Your task to perform on an android device: uninstall "Adobe Acrobat Reader" Image 0: 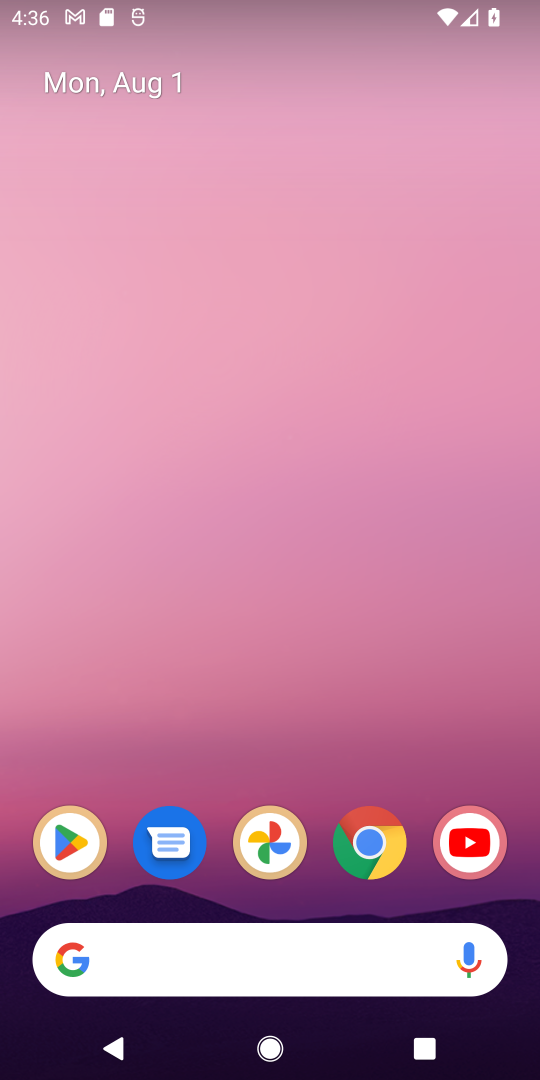
Step 0: drag from (324, 1039) to (193, 598)
Your task to perform on an android device: uninstall "Adobe Acrobat Reader" Image 1: 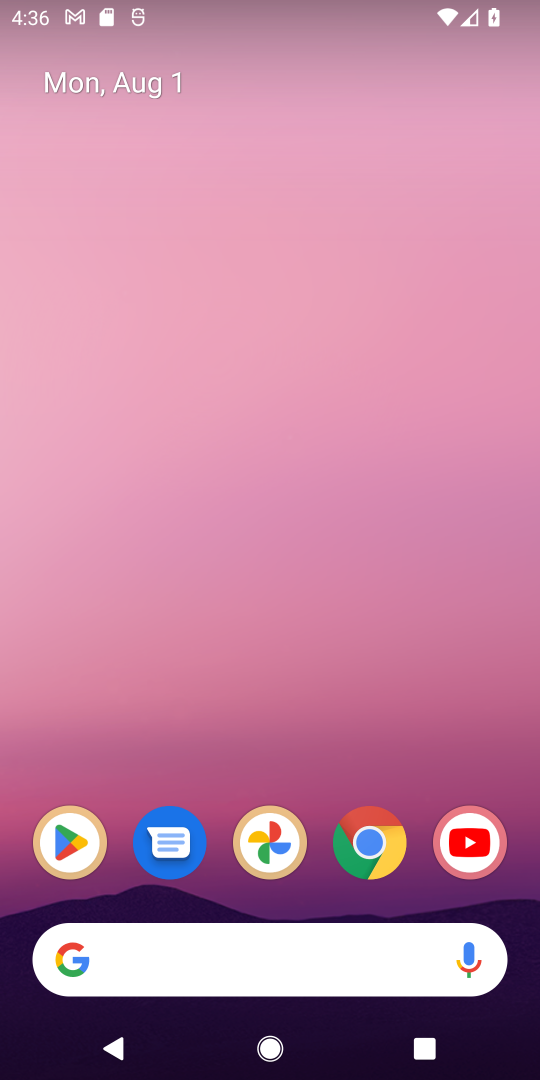
Step 1: drag from (302, 1044) to (202, 105)
Your task to perform on an android device: uninstall "Adobe Acrobat Reader" Image 2: 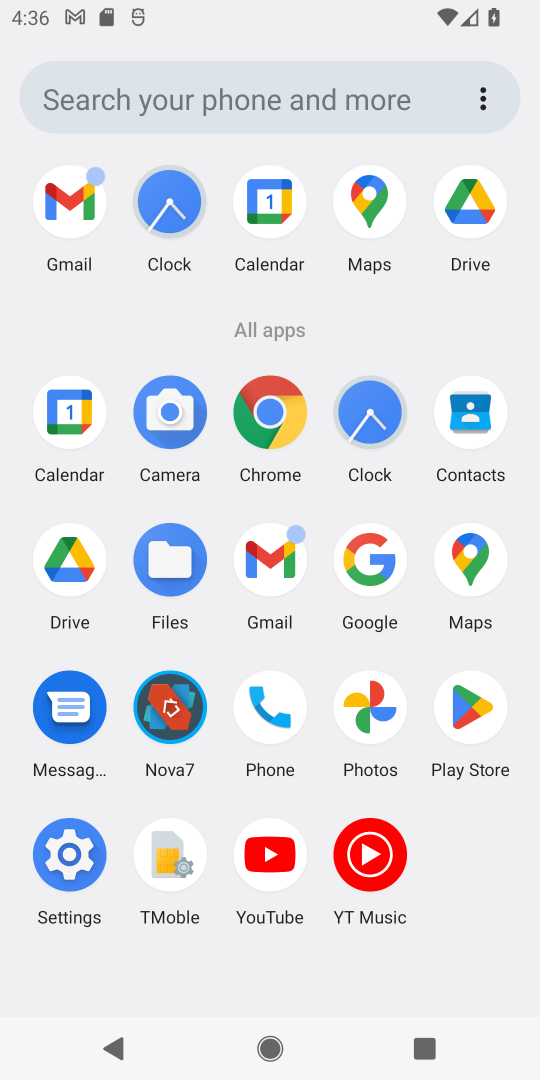
Step 2: click (461, 716)
Your task to perform on an android device: uninstall "Adobe Acrobat Reader" Image 3: 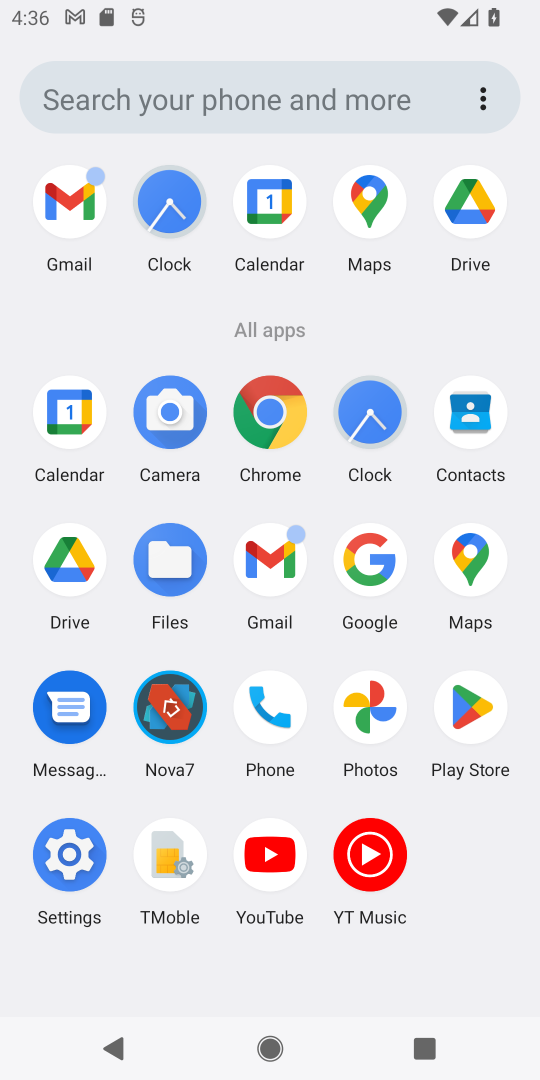
Step 3: click (462, 717)
Your task to perform on an android device: uninstall "Adobe Acrobat Reader" Image 4: 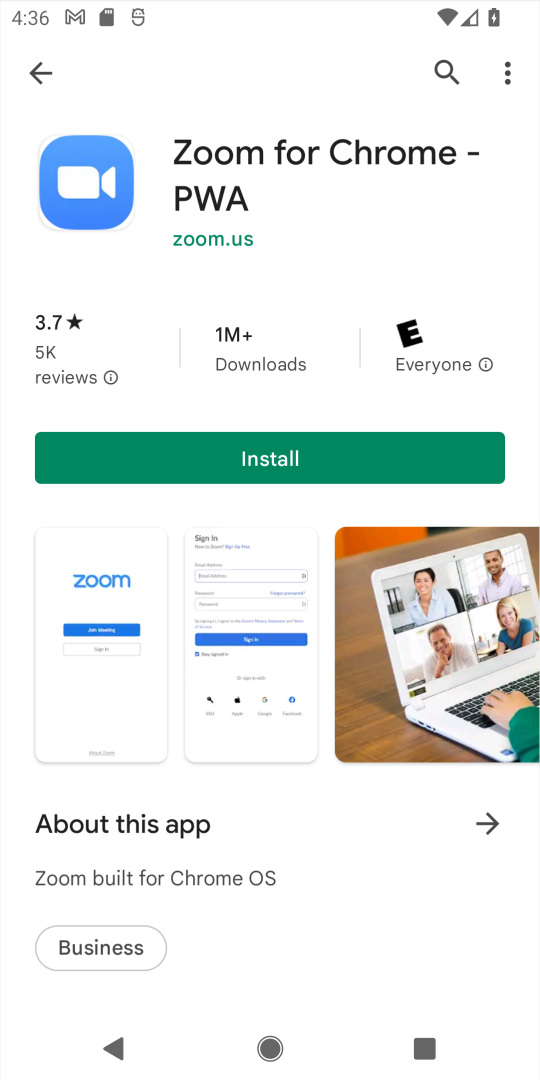
Step 4: click (467, 717)
Your task to perform on an android device: uninstall "Adobe Acrobat Reader" Image 5: 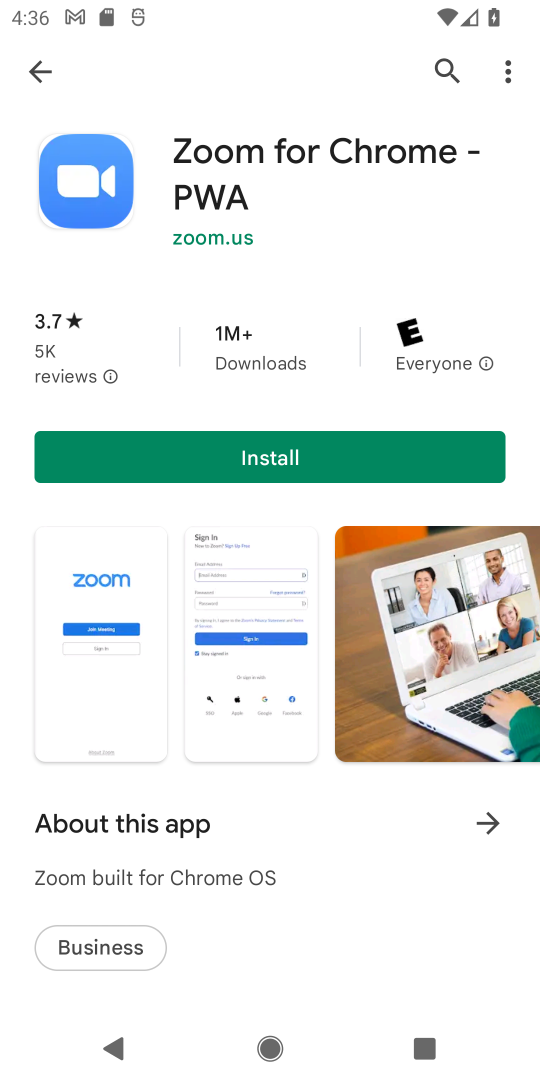
Step 5: click (471, 715)
Your task to perform on an android device: uninstall "Adobe Acrobat Reader" Image 6: 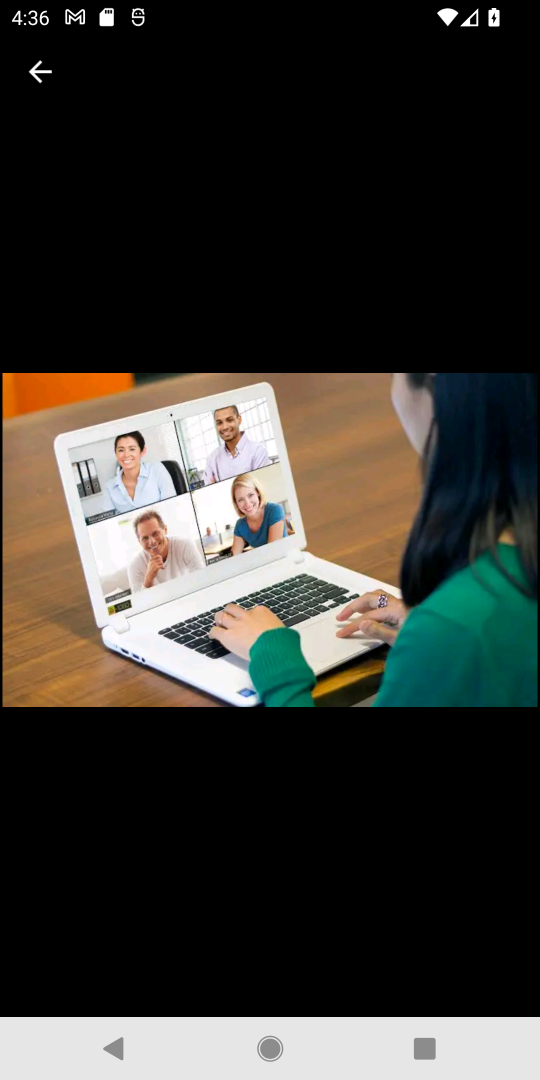
Step 6: click (29, 77)
Your task to perform on an android device: uninstall "Adobe Acrobat Reader" Image 7: 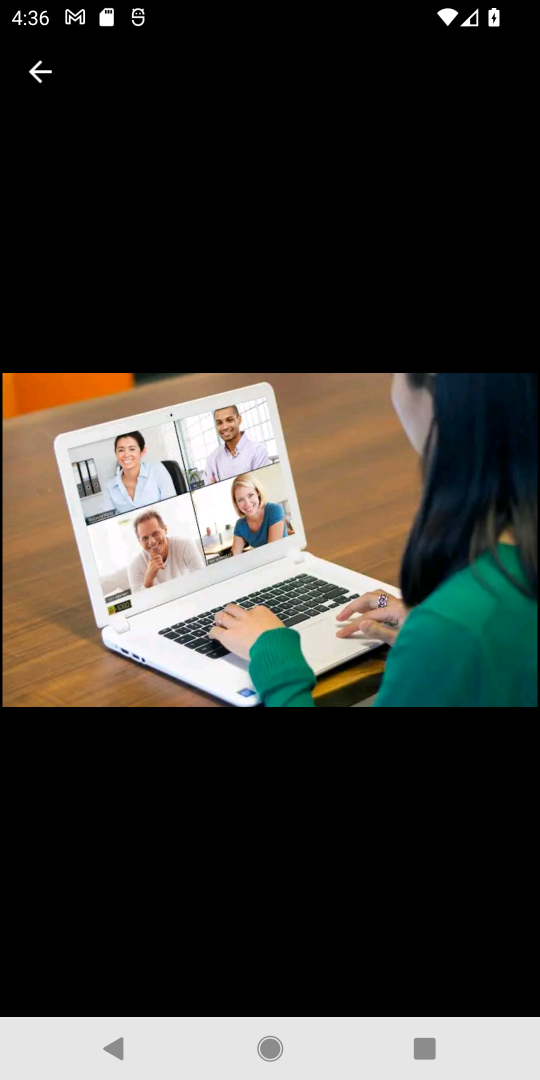
Step 7: click (31, 77)
Your task to perform on an android device: uninstall "Adobe Acrobat Reader" Image 8: 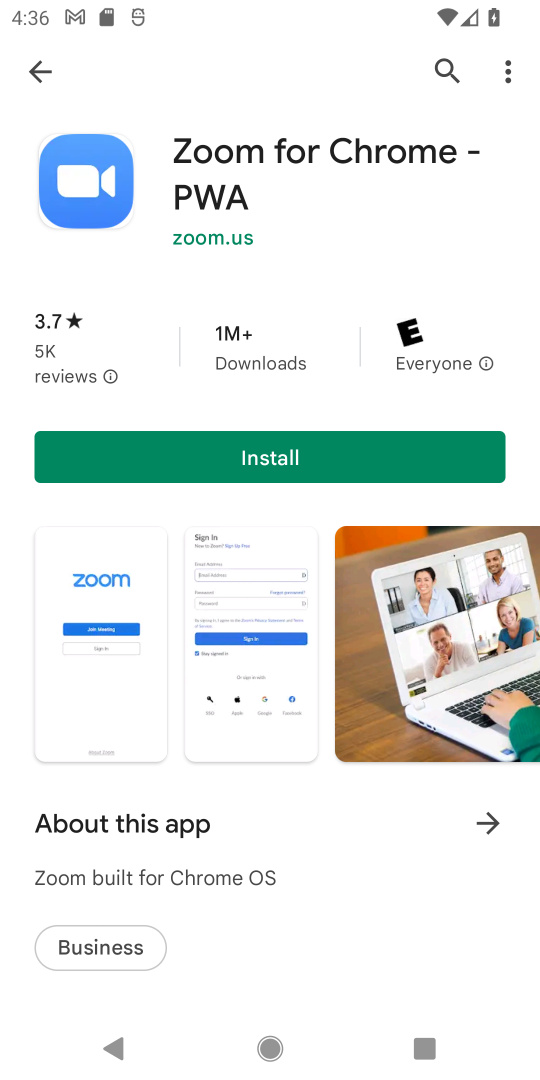
Step 8: click (37, 89)
Your task to perform on an android device: uninstall "Adobe Acrobat Reader" Image 9: 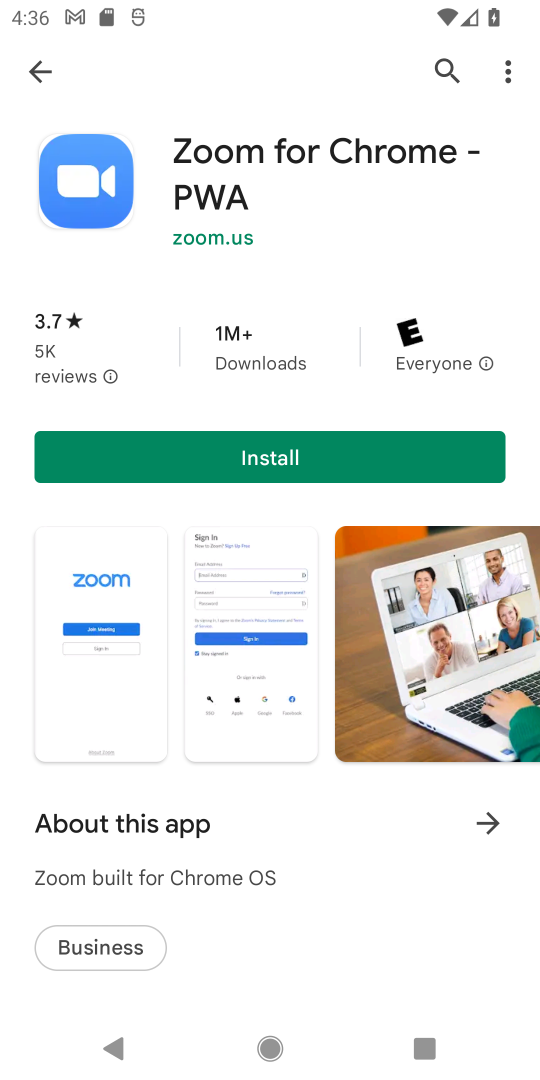
Step 9: click (34, 100)
Your task to perform on an android device: uninstall "Adobe Acrobat Reader" Image 10: 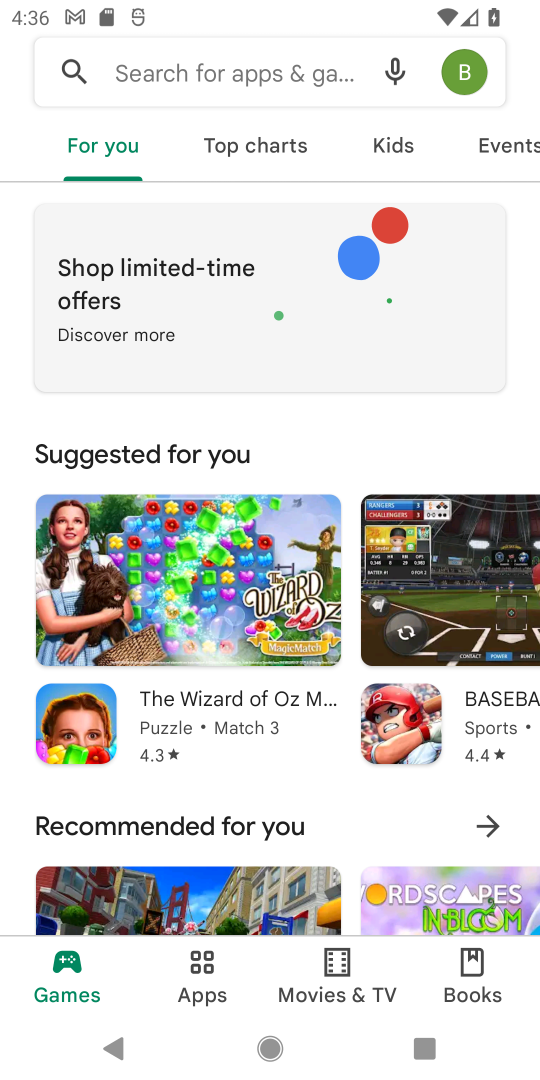
Step 10: click (149, 69)
Your task to perform on an android device: uninstall "Adobe Acrobat Reader" Image 11: 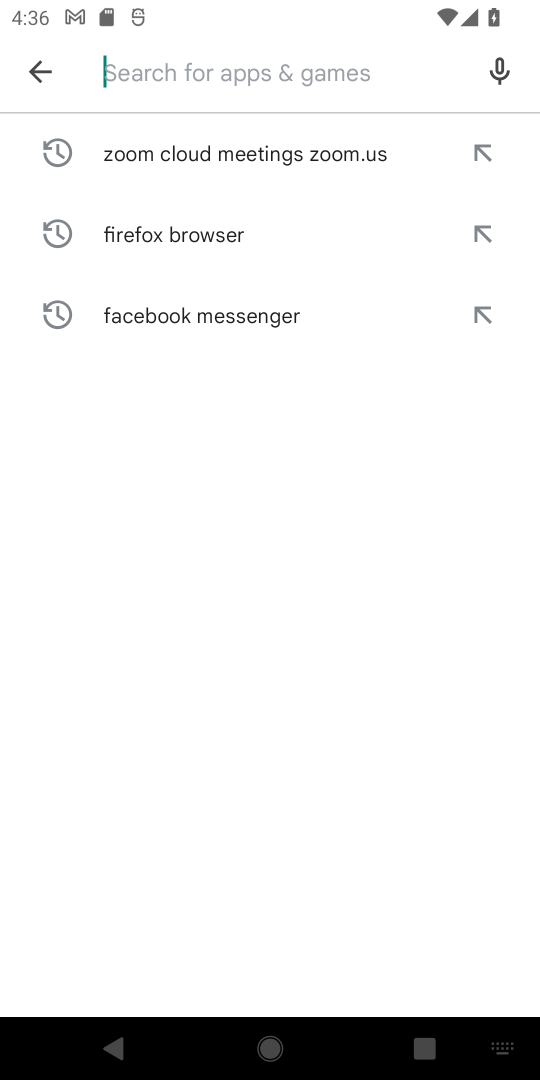
Step 11: type "Adobe Acrobat Reader"
Your task to perform on an android device: uninstall "Adobe Acrobat Reader" Image 12: 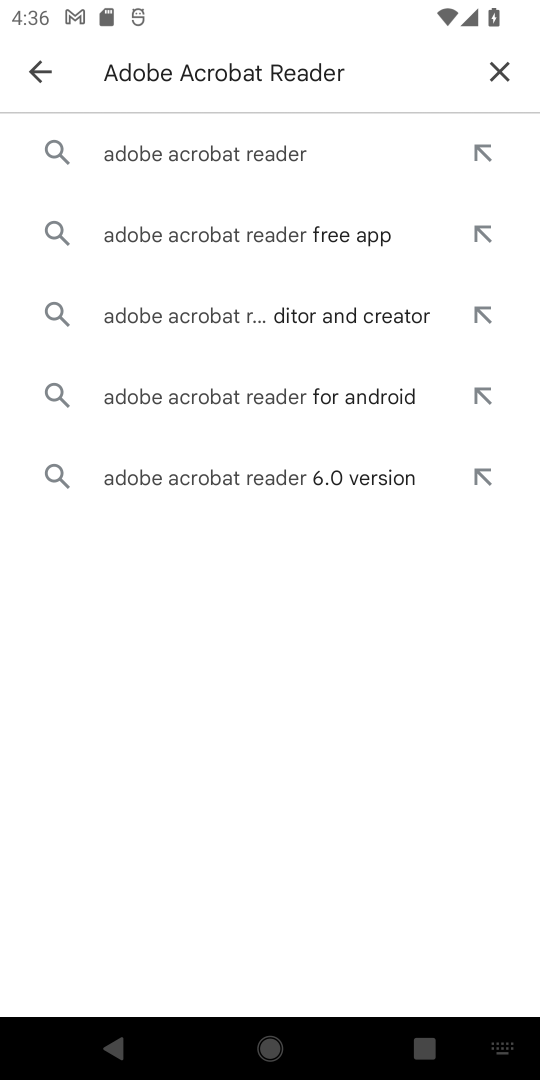
Step 12: click (275, 140)
Your task to perform on an android device: uninstall "Adobe Acrobat Reader" Image 13: 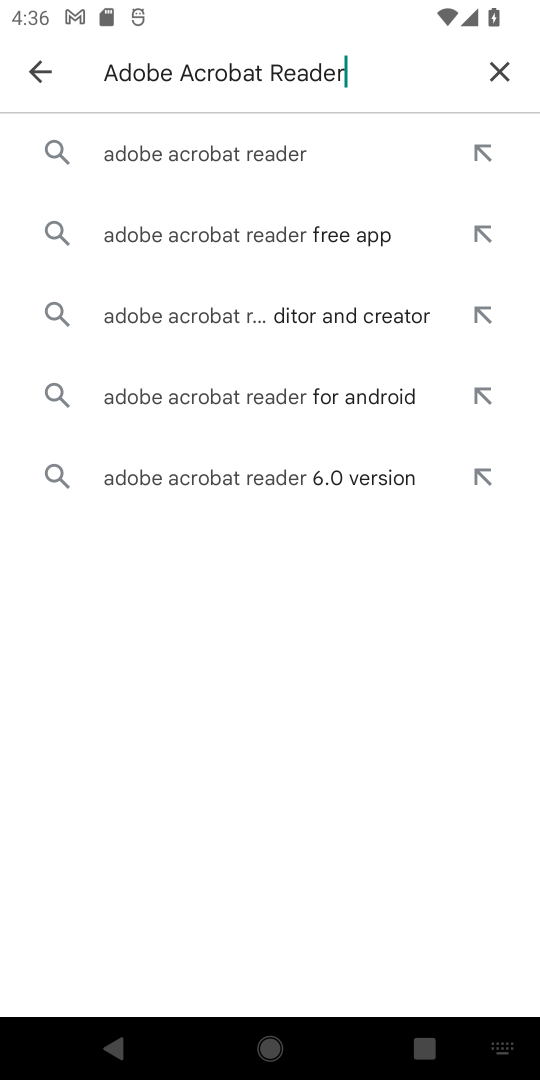
Step 13: click (273, 142)
Your task to perform on an android device: uninstall "Adobe Acrobat Reader" Image 14: 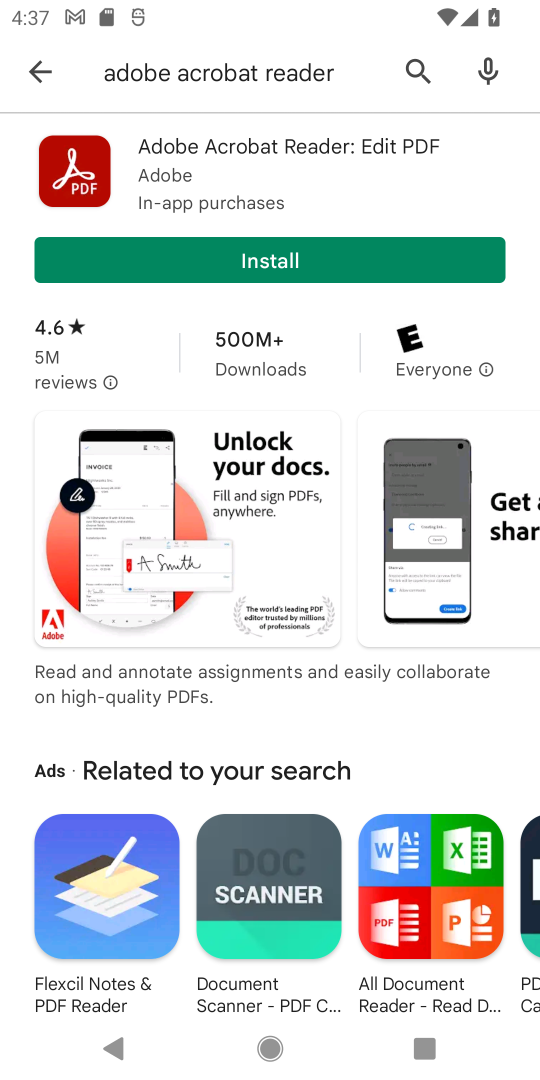
Step 14: task complete